Your task to perform on an android device: Go to wifi settings Image 0: 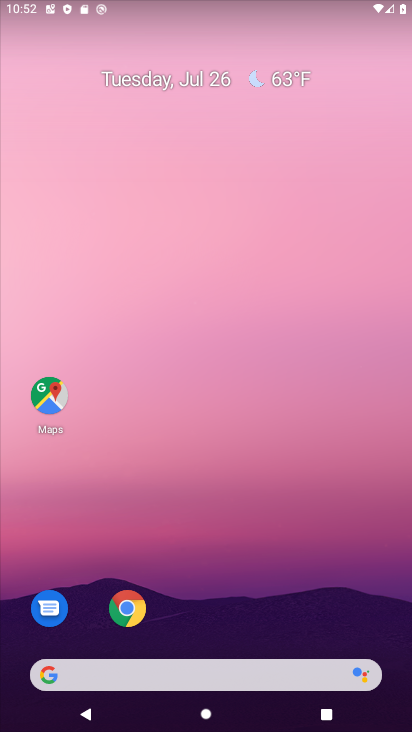
Step 0: press home button
Your task to perform on an android device: Go to wifi settings Image 1: 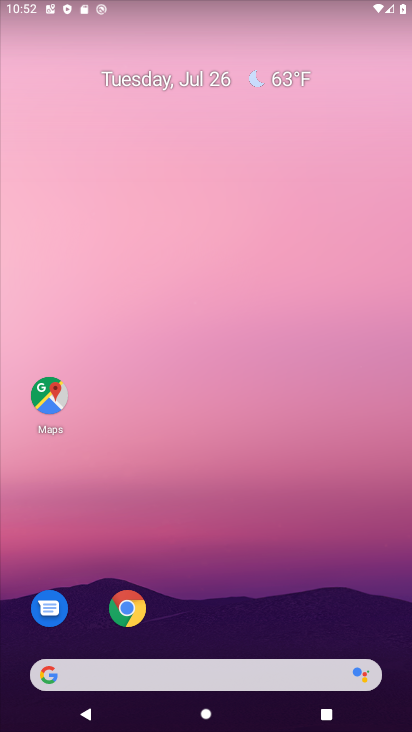
Step 1: drag from (259, 573) to (255, 52)
Your task to perform on an android device: Go to wifi settings Image 2: 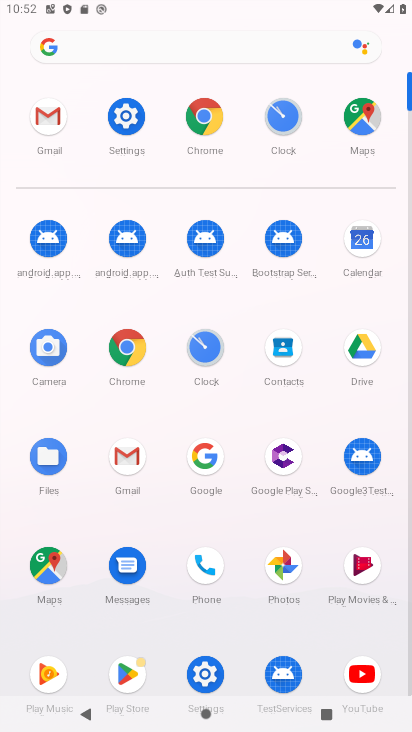
Step 2: click (121, 115)
Your task to perform on an android device: Go to wifi settings Image 3: 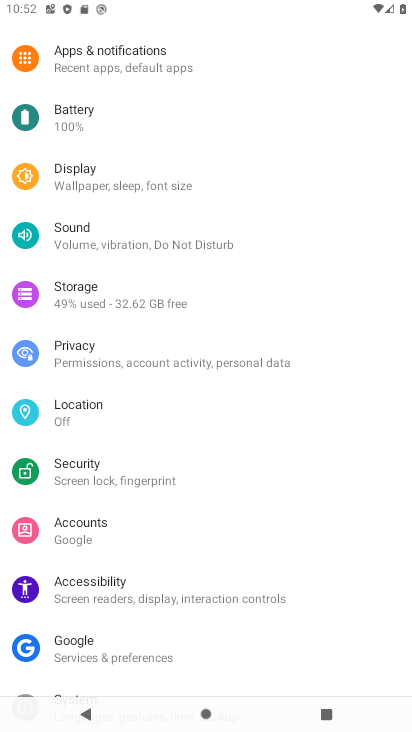
Step 3: drag from (212, 95) to (207, 459)
Your task to perform on an android device: Go to wifi settings Image 4: 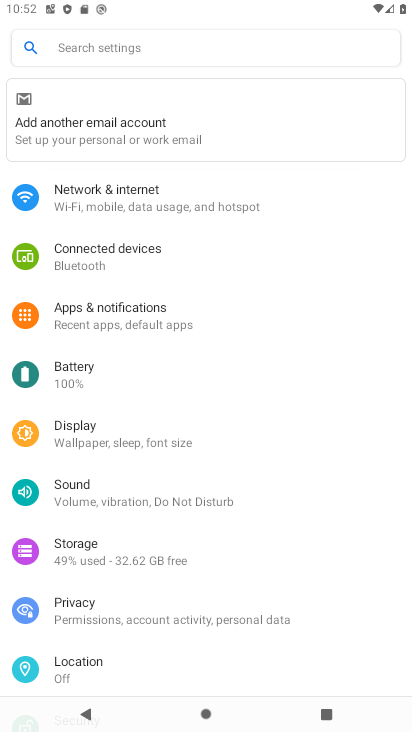
Step 4: click (119, 190)
Your task to perform on an android device: Go to wifi settings Image 5: 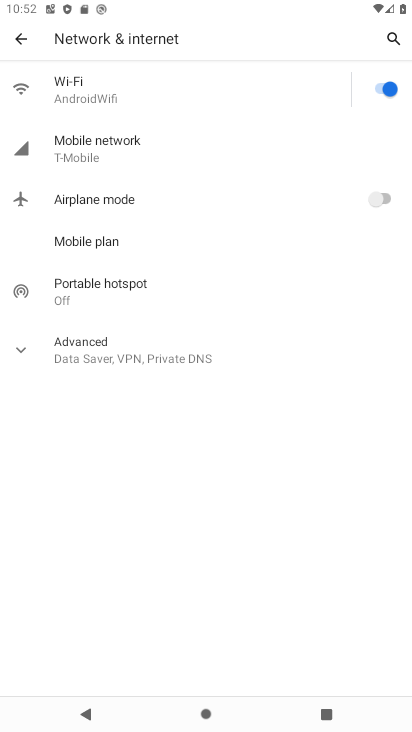
Step 5: click (107, 90)
Your task to perform on an android device: Go to wifi settings Image 6: 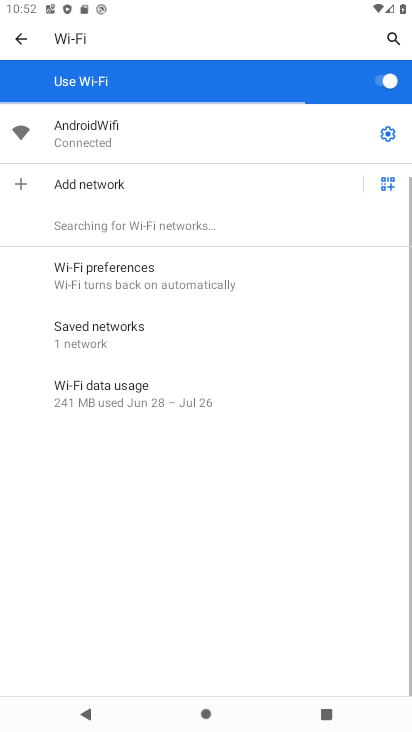
Step 6: task complete